Your task to perform on an android device: choose inbox layout in the gmail app Image 0: 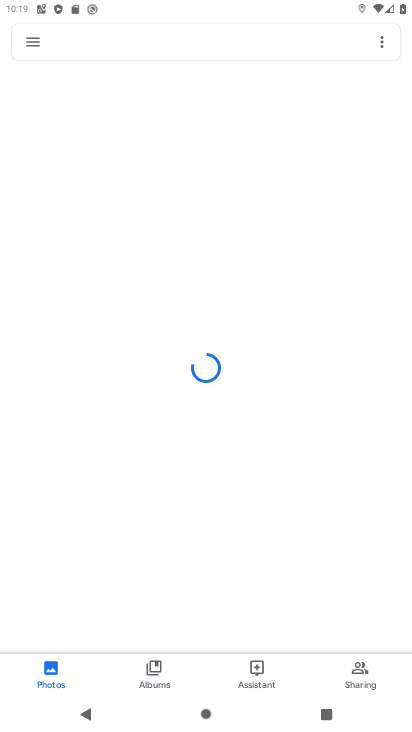
Step 0: press home button
Your task to perform on an android device: choose inbox layout in the gmail app Image 1: 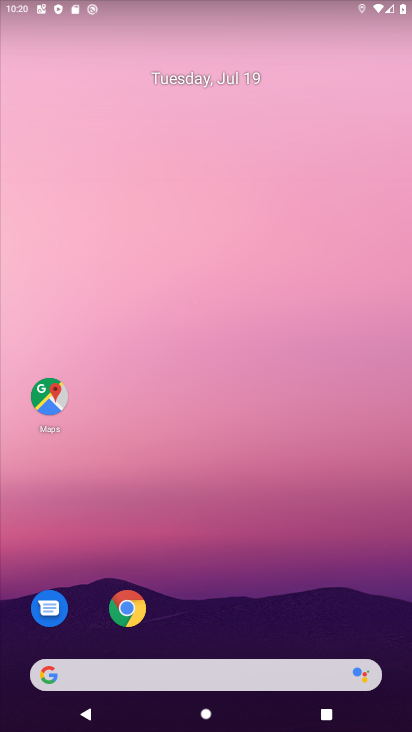
Step 1: drag from (238, 653) to (187, 167)
Your task to perform on an android device: choose inbox layout in the gmail app Image 2: 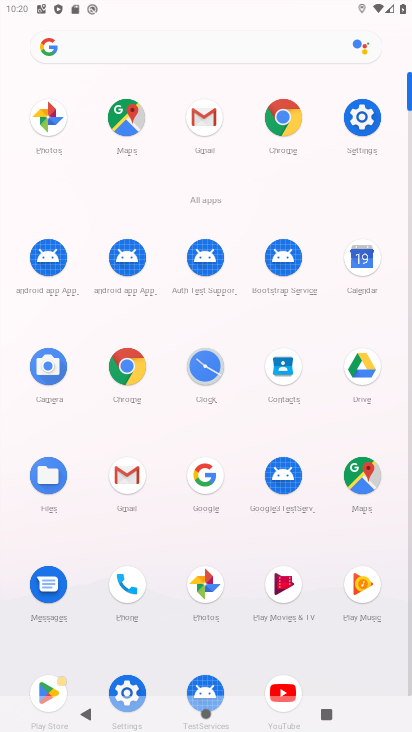
Step 2: click (125, 483)
Your task to perform on an android device: choose inbox layout in the gmail app Image 3: 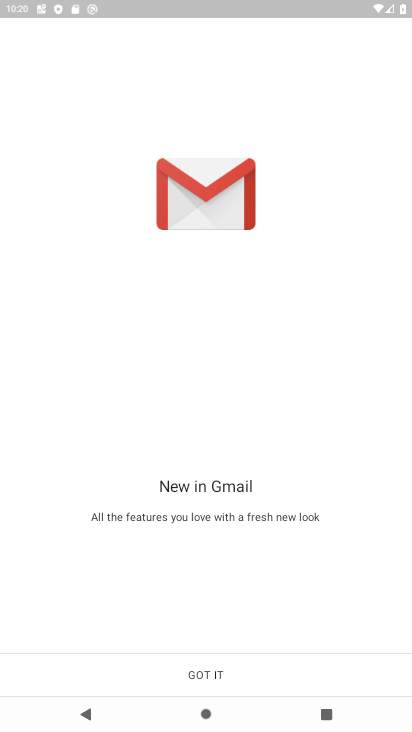
Step 3: click (198, 668)
Your task to perform on an android device: choose inbox layout in the gmail app Image 4: 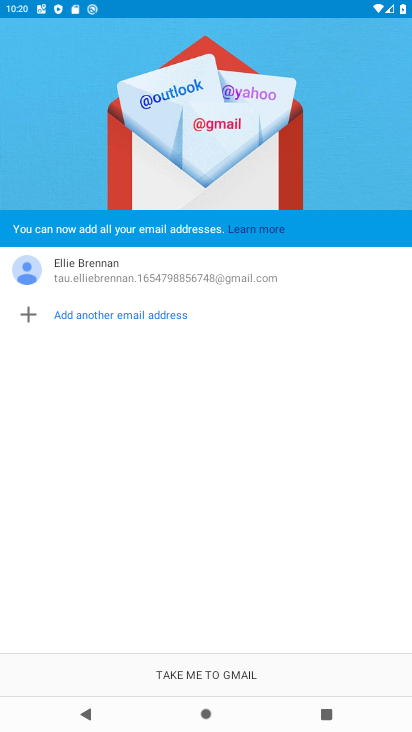
Step 4: click (175, 670)
Your task to perform on an android device: choose inbox layout in the gmail app Image 5: 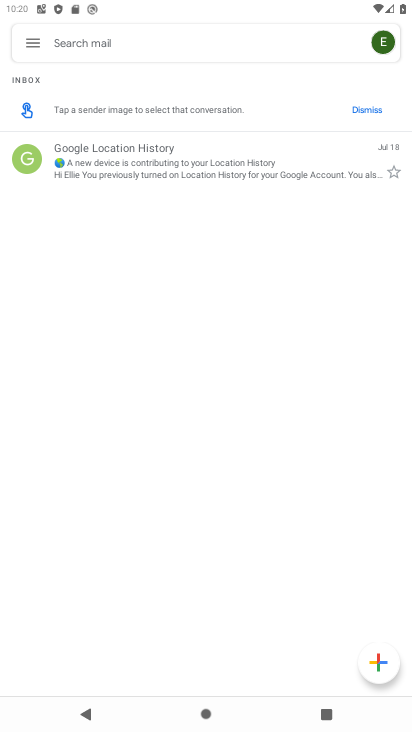
Step 5: click (27, 39)
Your task to perform on an android device: choose inbox layout in the gmail app Image 6: 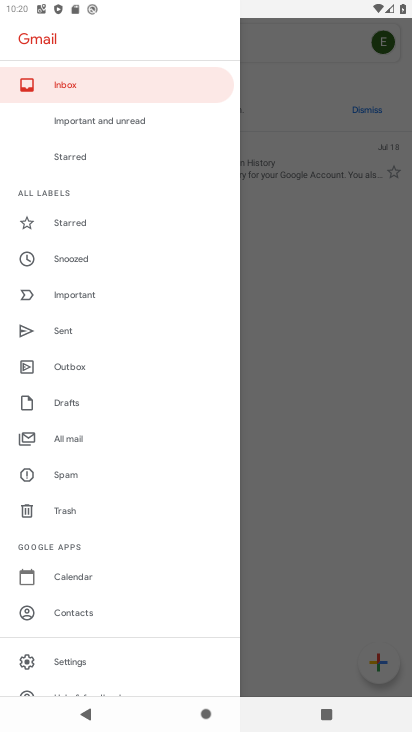
Step 6: click (80, 80)
Your task to perform on an android device: choose inbox layout in the gmail app Image 7: 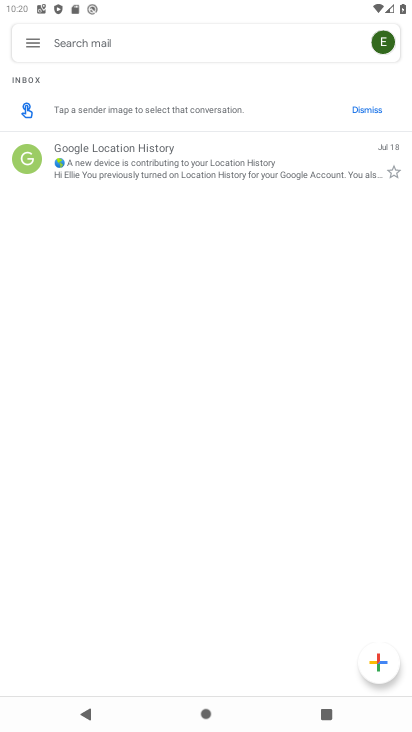
Step 7: task complete